Your task to perform on an android device: Search for Mexican restaurants on Maps Image 0: 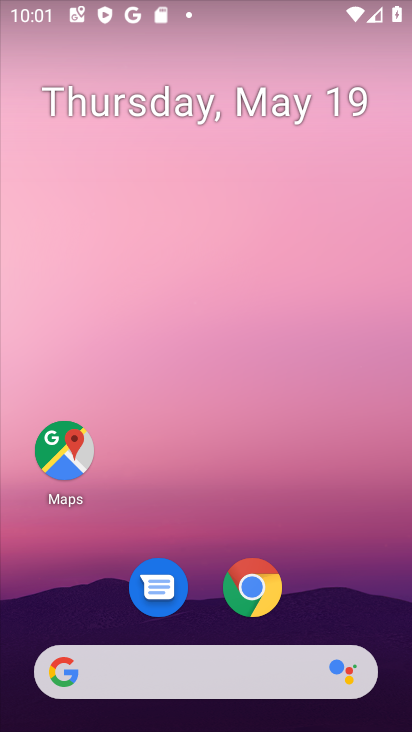
Step 0: click (65, 471)
Your task to perform on an android device: Search for Mexican restaurants on Maps Image 1: 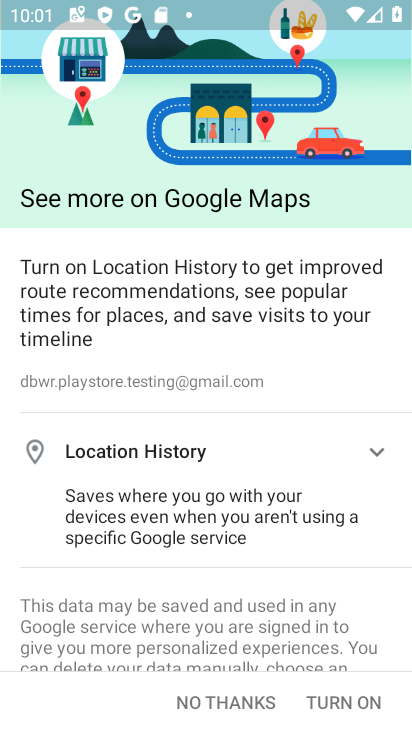
Step 1: click (225, 696)
Your task to perform on an android device: Search for Mexican restaurants on Maps Image 2: 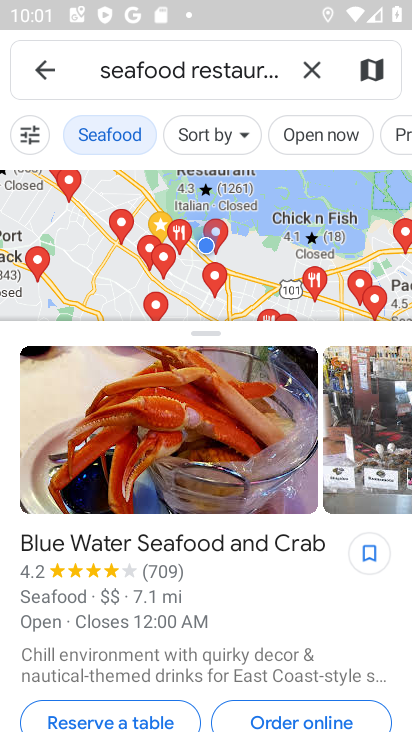
Step 2: click (314, 68)
Your task to perform on an android device: Search for Mexican restaurants on Maps Image 3: 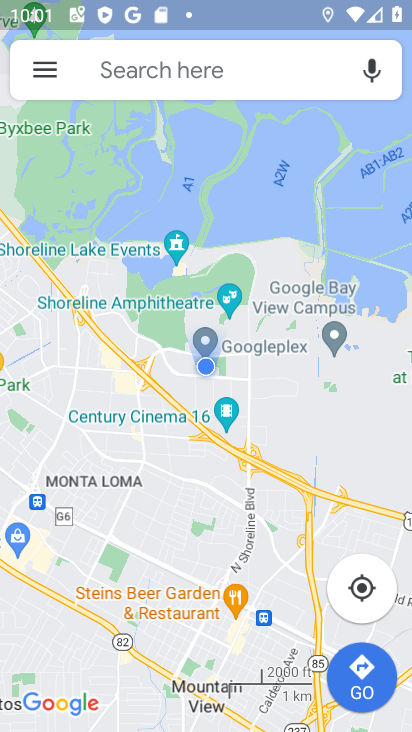
Step 3: click (314, 68)
Your task to perform on an android device: Search for Mexican restaurants on Maps Image 4: 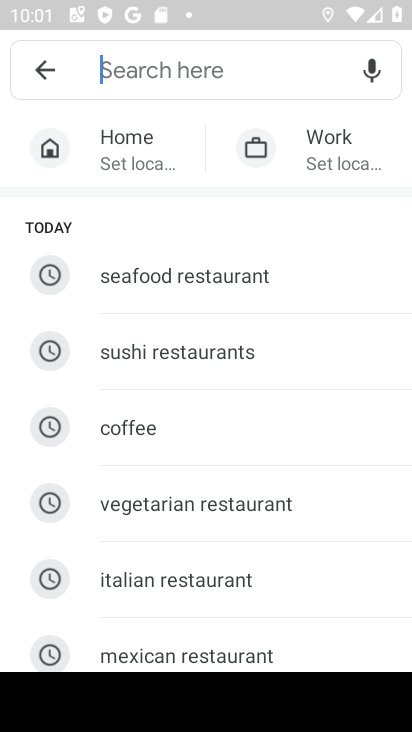
Step 4: click (286, 635)
Your task to perform on an android device: Search for Mexican restaurants on Maps Image 5: 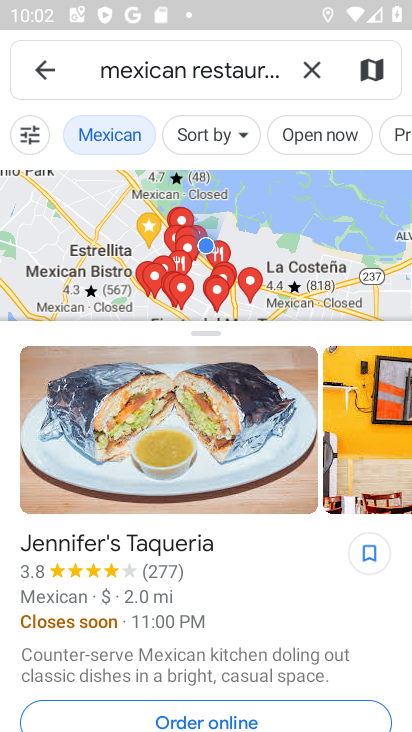
Step 5: task complete